Your task to perform on an android device: When is my next meeting? Image 0: 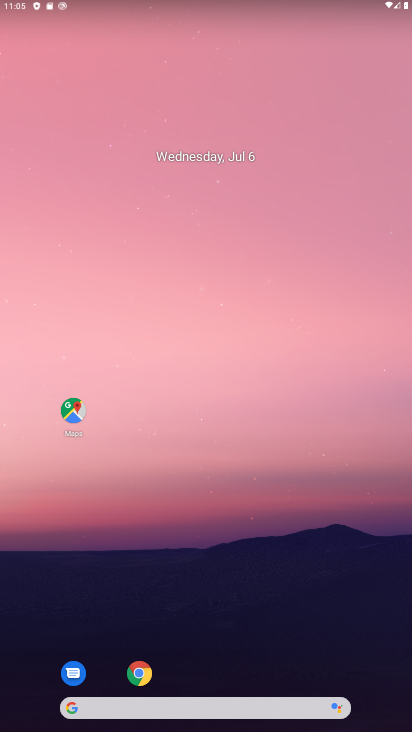
Step 0: drag from (5, 673) to (235, 102)
Your task to perform on an android device: When is my next meeting? Image 1: 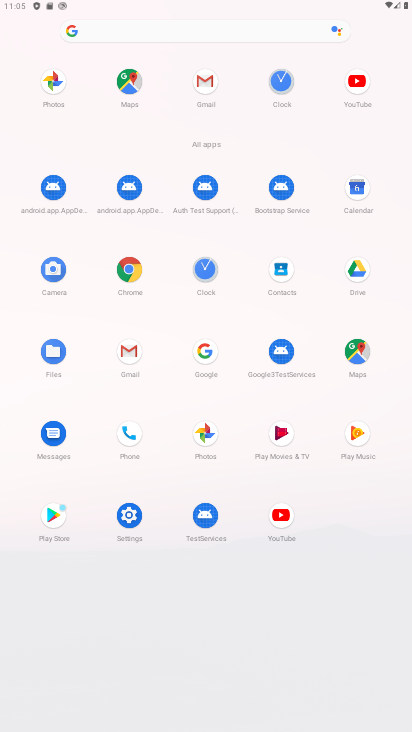
Step 1: click (356, 192)
Your task to perform on an android device: When is my next meeting? Image 2: 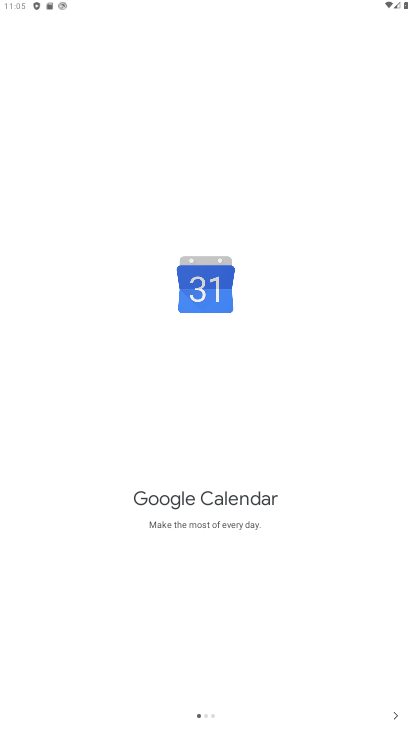
Step 2: click (397, 716)
Your task to perform on an android device: When is my next meeting? Image 3: 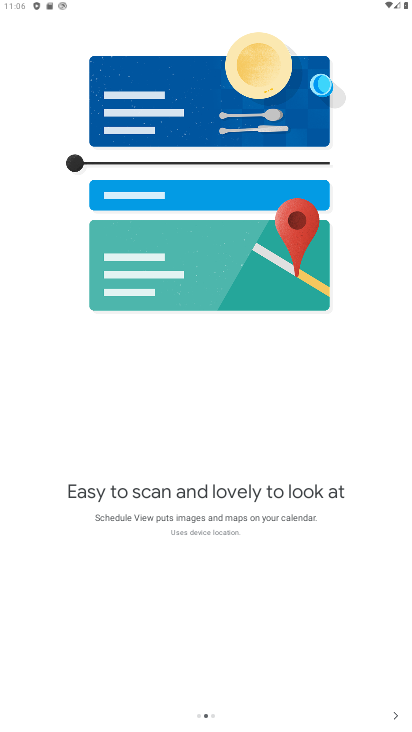
Step 3: click (394, 714)
Your task to perform on an android device: When is my next meeting? Image 4: 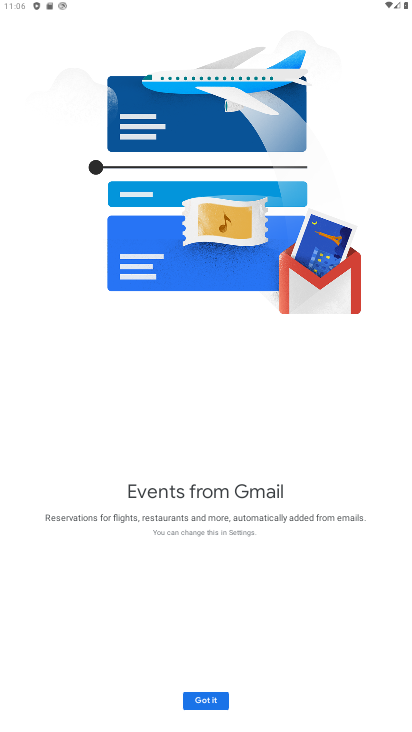
Step 4: click (214, 698)
Your task to perform on an android device: When is my next meeting? Image 5: 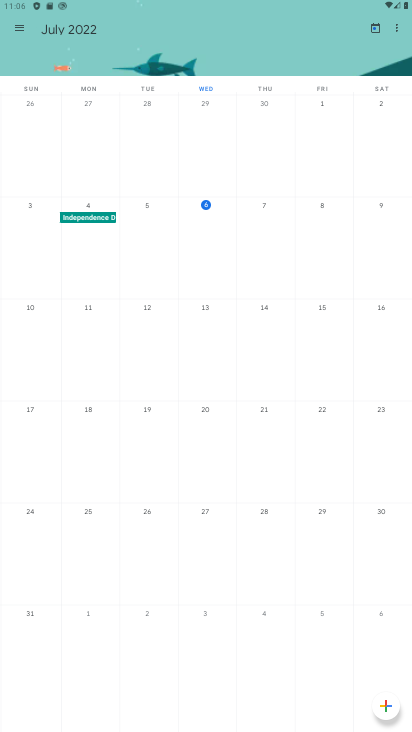
Step 5: click (21, 30)
Your task to perform on an android device: When is my next meeting? Image 6: 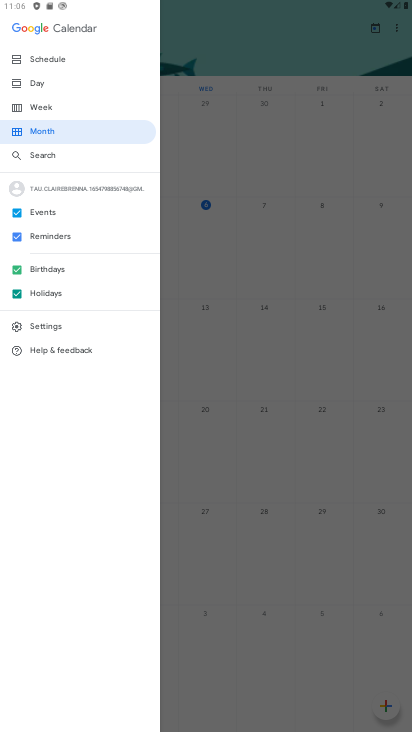
Step 6: task complete